Your task to perform on an android device: turn off location Image 0: 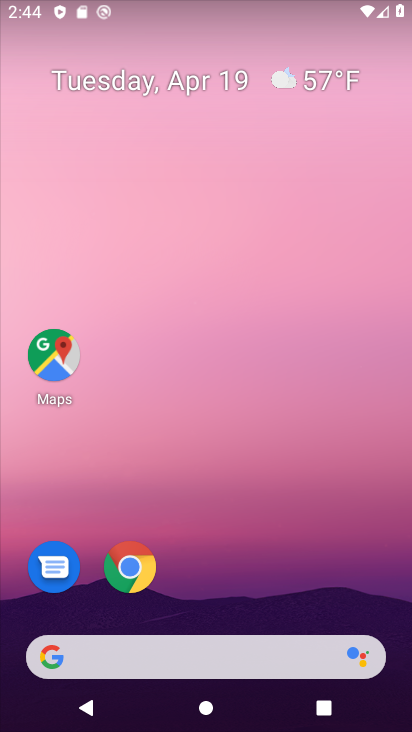
Step 0: drag from (380, 573) to (375, 191)
Your task to perform on an android device: turn off location Image 1: 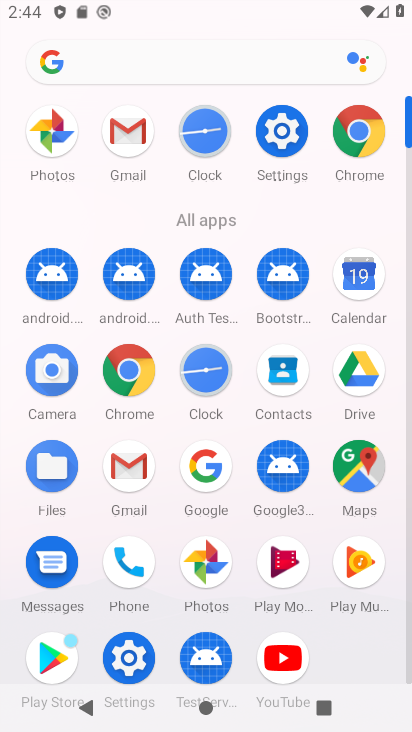
Step 1: click (280, 129)
Your task to perform on an android device: turn off location Image 2: 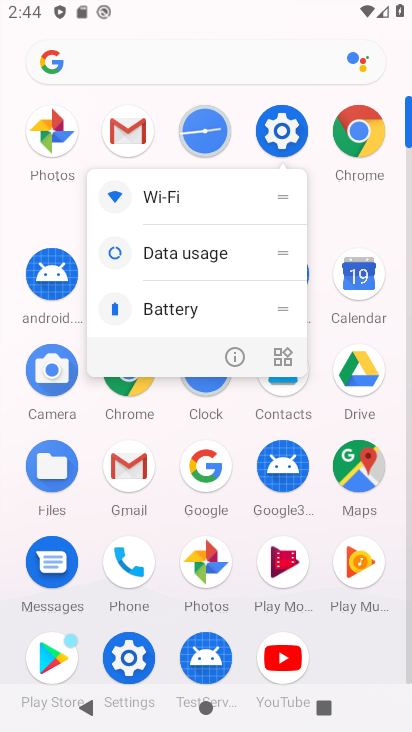
Step 2: click (296, 135)
Your task to perform on an android device: turn off location Image 3: 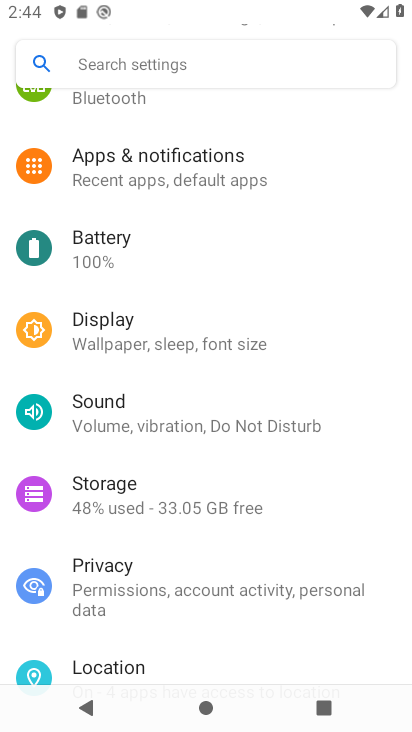
Step 3: drag from (356, 490) to (361, 294)
Your task to perform on an android device: turn off location Image 4: 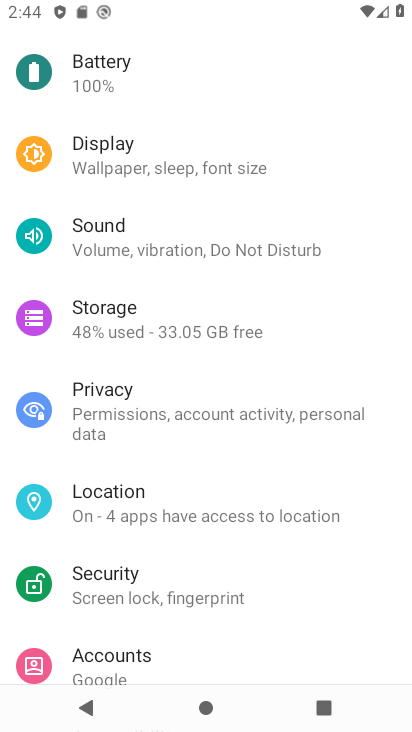
Step 4: drag from (353, 577) to (358, 322)
Your task to perform on an android device: turn off location Image 5: 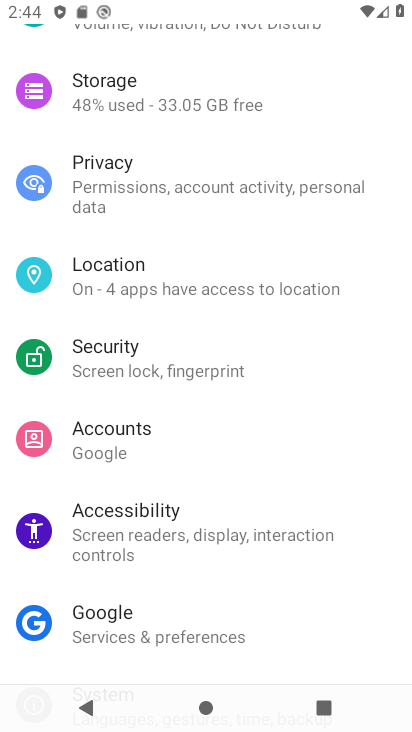
Step 5: drag from (362, 543) to (361, 382)
Your task to perform on an android device: turn off location Image 6: 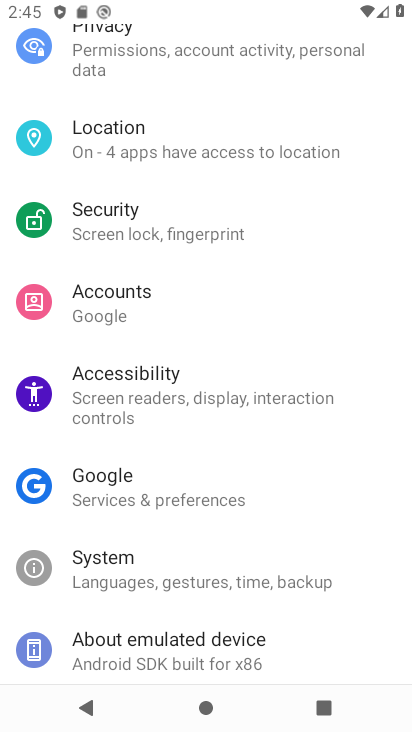
Step 6: click (105, 136)
Your task to perform on an android device: turn off location Image 7: 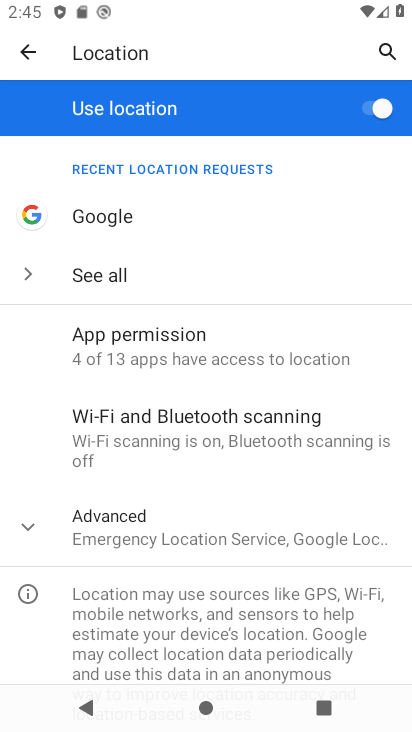
Step 7: click (378, 106)
Your task to perform on an android device: turn off location Image 8: 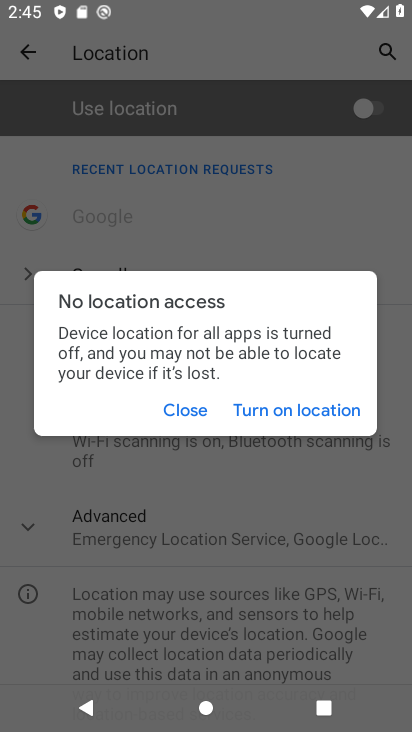
Step 8: task complete